Your task to perform on an android device: Add "jbl flip 4" to the cart on walmart.com Image 0: 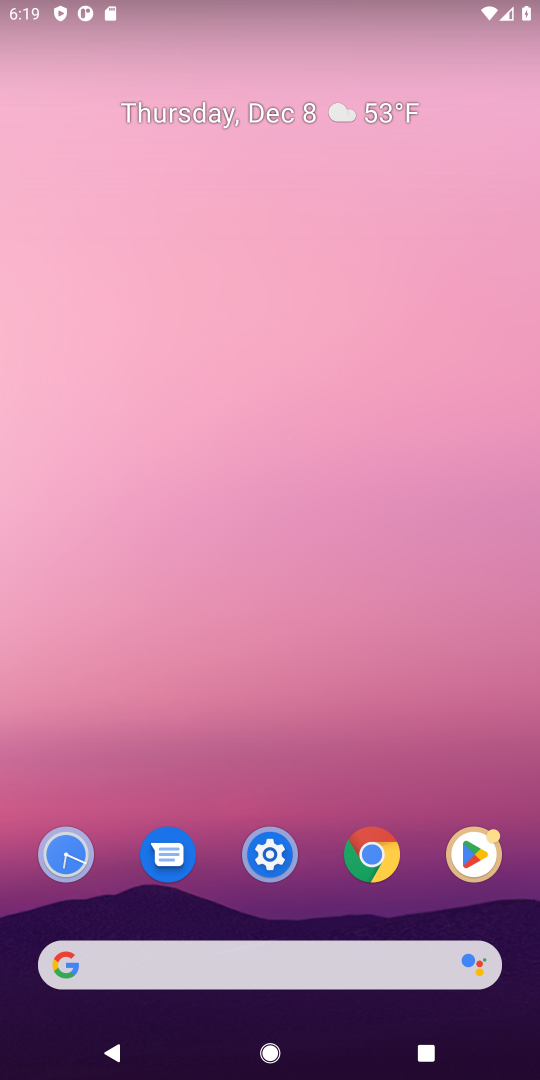
Step 0: click (97, 964)
Your task to perform on an android device: Add "jbl flip 4" to the cart on walmart.com Image 1: 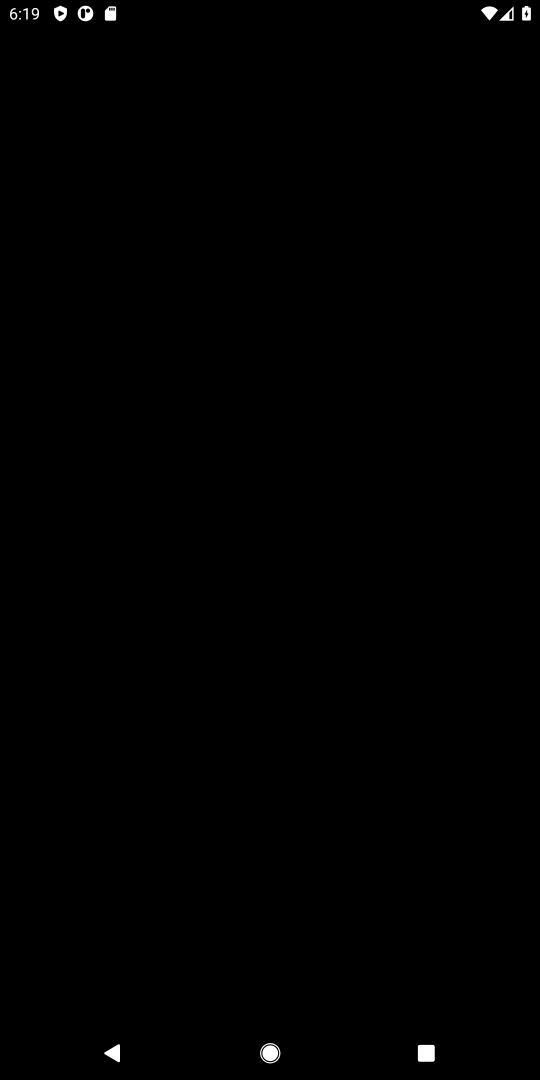
Step 1: click (114, 966)
Your task to perform on an android device: Add "jbl flip 4" to the cart on walmart.com Image 2: 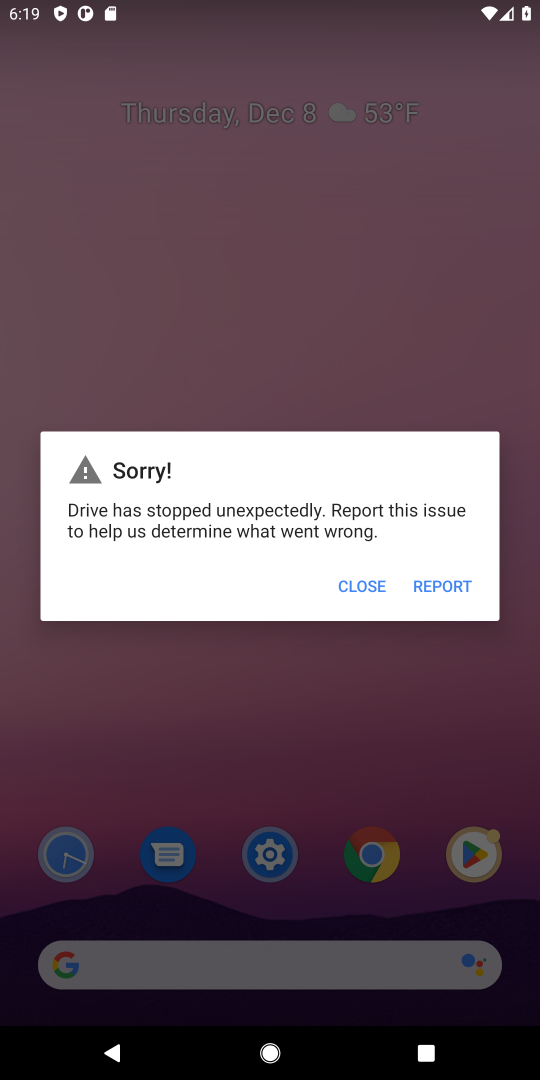
Step 2: press home button
Your task to perform on an android device: Add "jbl flip 4" to the cart on walmart.com Image 3: 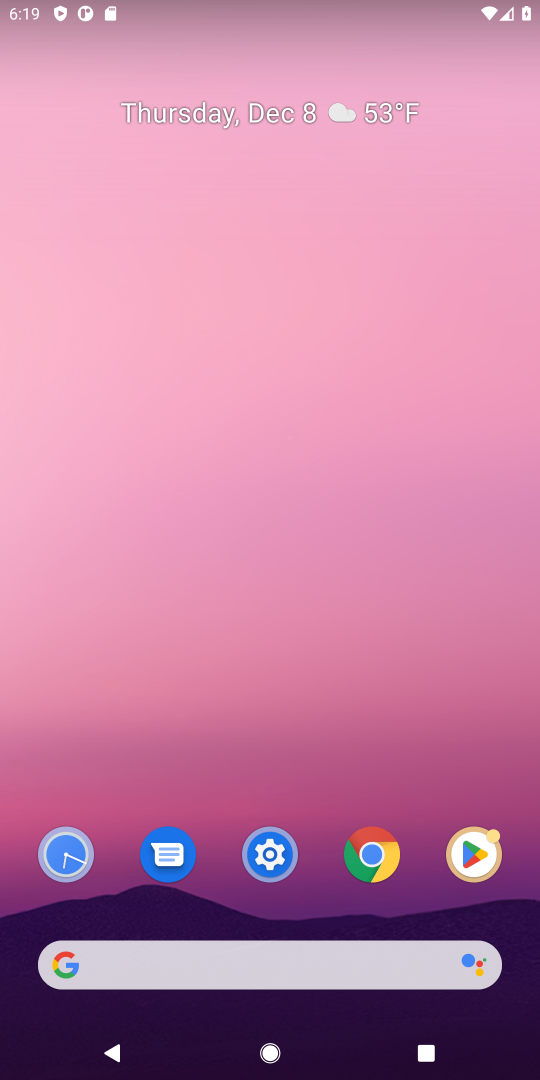
Step 3: click (80, 969)
Your task to perform on an android device: Add "jbl flip 4" to the cart on walmart.com Image 4: 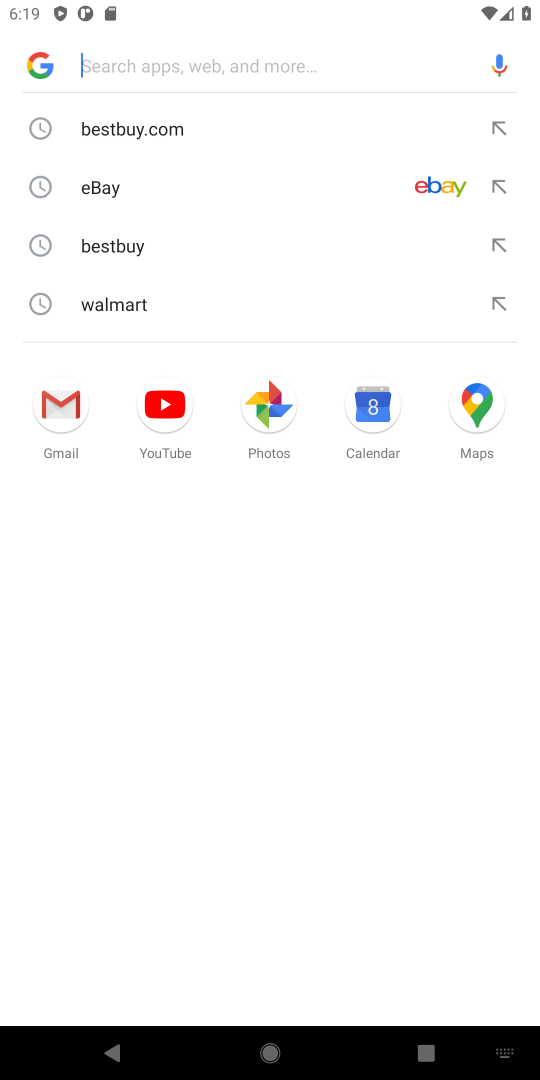
Step 4: type " walmart.com"
Your task to perform on an android device: Add "jbl flip 4" to the cart on walmart.com Image 5: 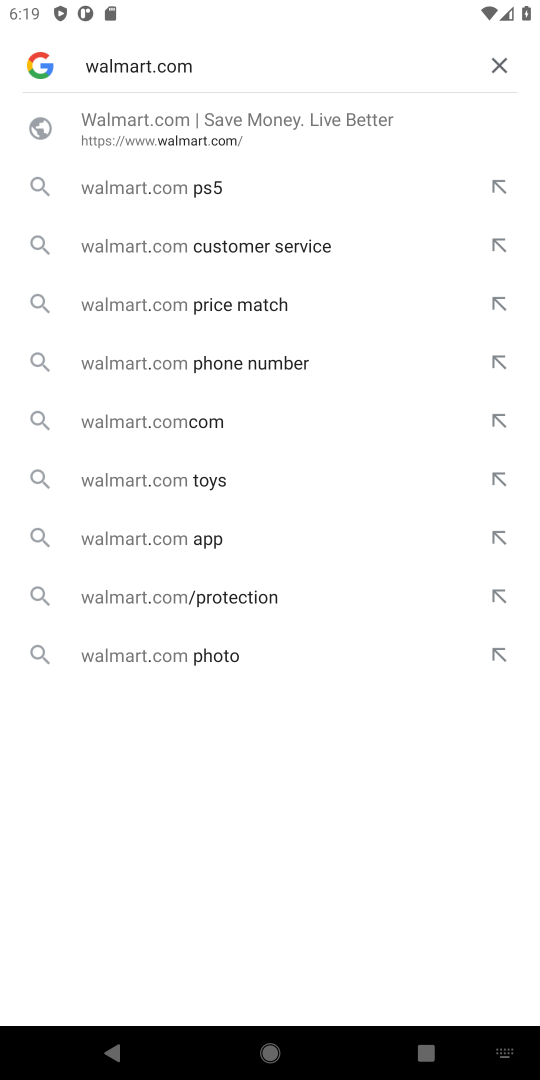
Step 5: press enter
Your task to perform on an android device: Add "jbl flip 4" to the cart on walmart.com Image 6: 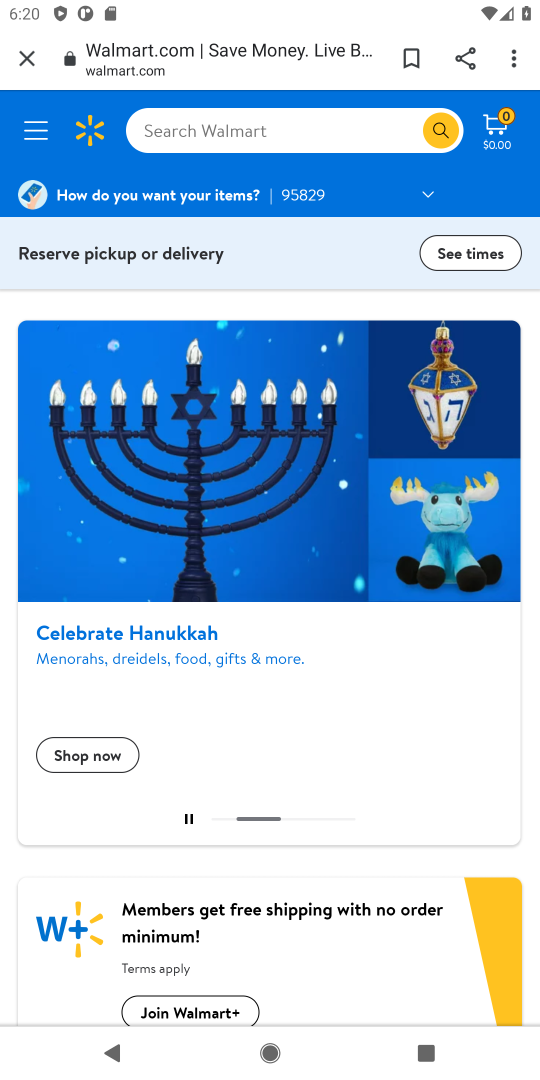
Step 6: click (245, 133)
Your task to perform on an android device: Add "jbl flip 4" to the cart on walmart.com Image 7: 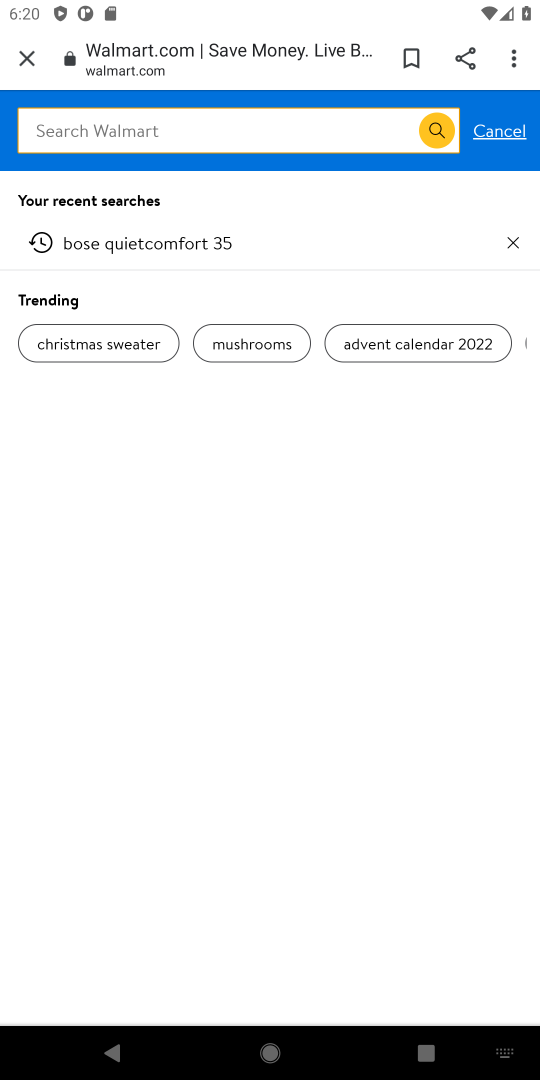
Step 7: type "jbl flip 4"
Your task to perform on an android device: Add "jbl flip 4" to the cart on walmart.com Image 8: 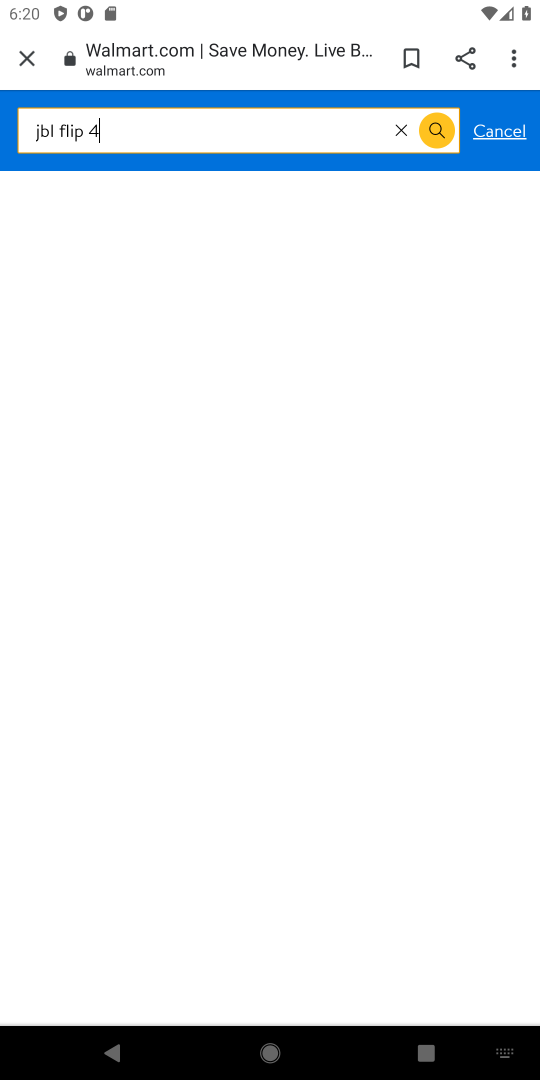
Step 8: press enter
Your task to perform on an android device: Add "jbl flip 4" to the cart on walmart.com Image 9: 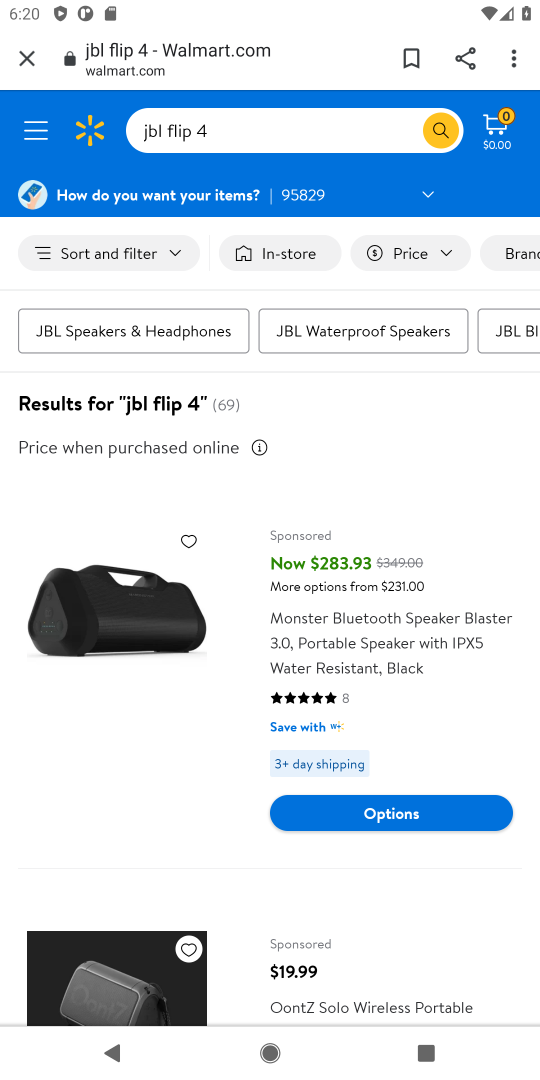
Step 9: drag from (384, 940) to (413, 558)
Your task to perform on an android device: Add "jbl flip 4" to the cart on walmart.com Image 10: 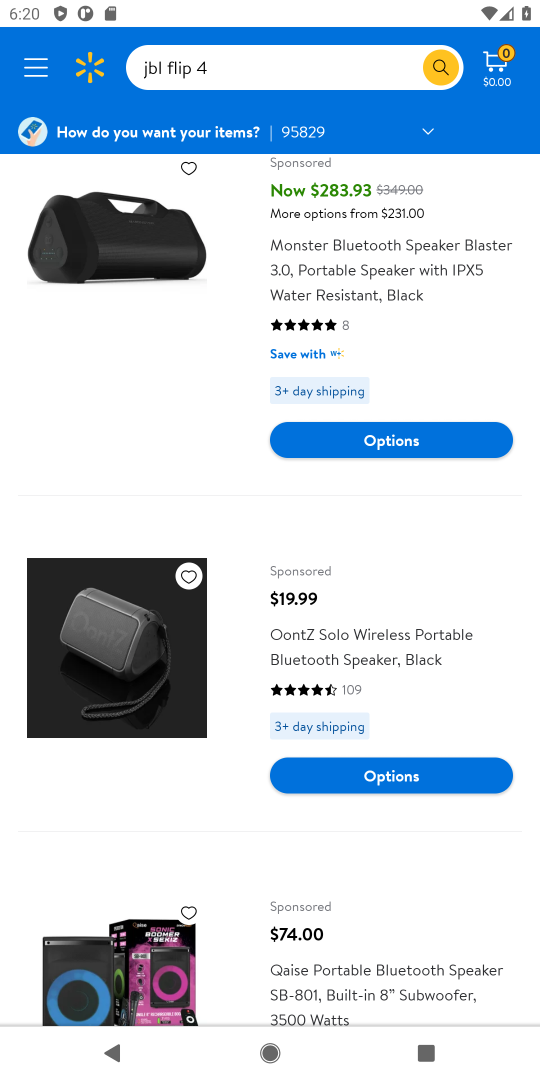
Step 10: drag from (366, 933) to (386, 401)
Your task to perform on an android device: Add "jbl flip 4" to the cart on walmart.com Image 11: 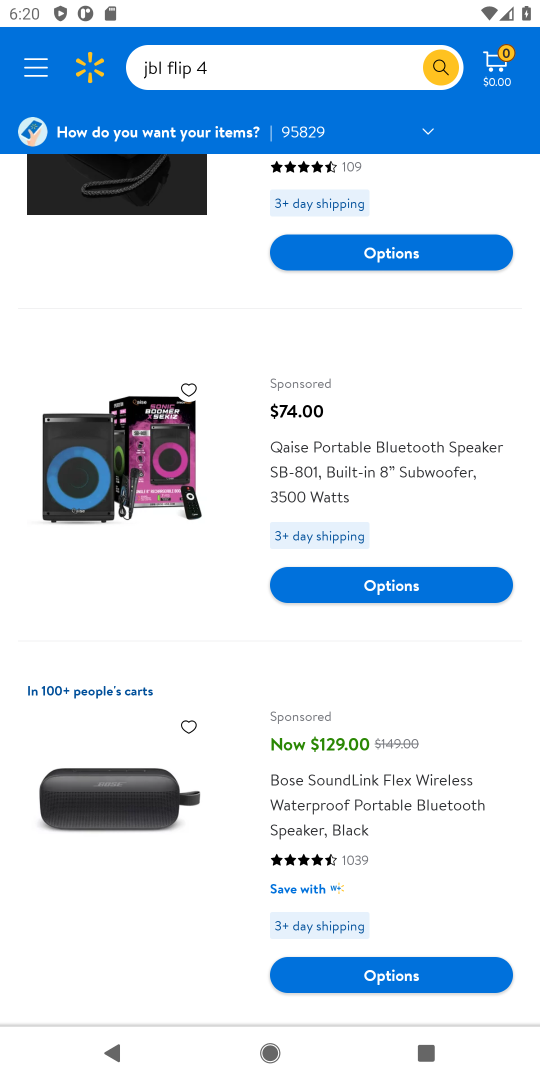
Step 11: drag from (361, 927) to (425, 408)
Your task to perform on an android device: Add "jbl flip 4" to the cart on walmart.com Image 12: 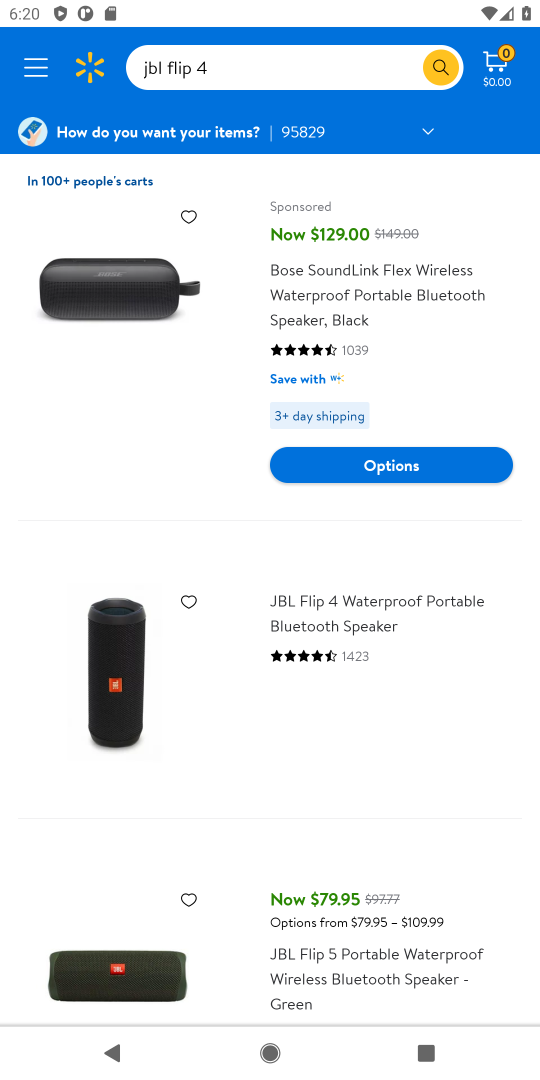
Step 12: click (335, 630)
Your task to perform on an android device: Add "jbl flip 4" to the cart on walmart.com Image 13: 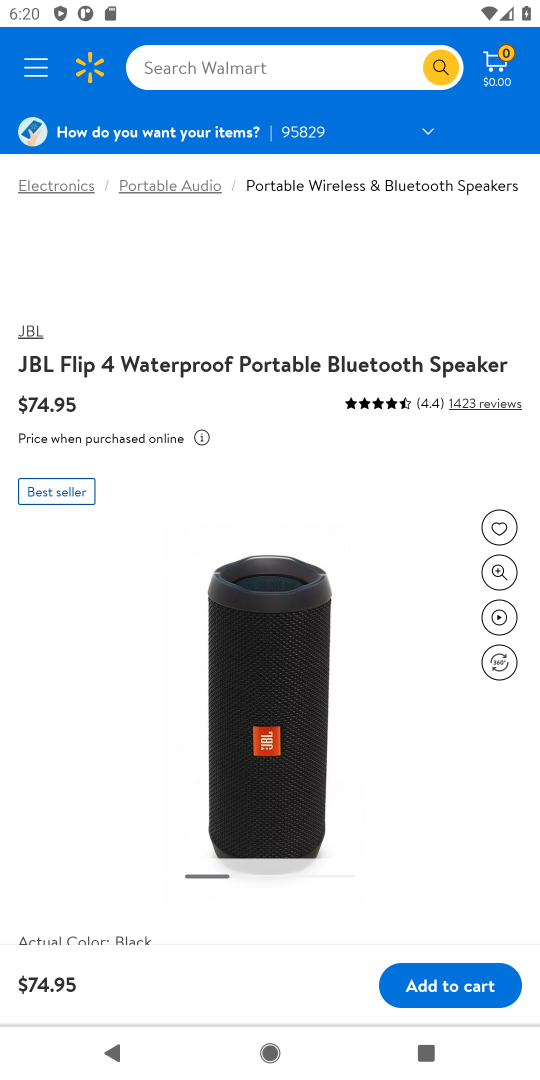
Step 13: click (450, 987)
Your task to perform on an android device: Add "jbl flip 4" to the cart on walmart.com Image 14: 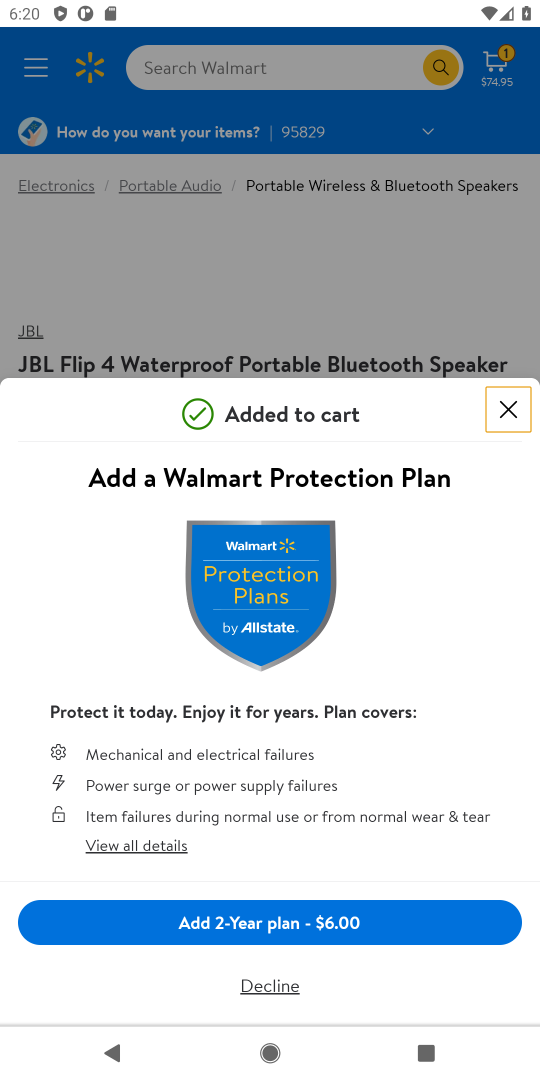
Step 14: click (252, 990)
Your task to perform on an android device: Add "jbl flip 4" to the cart on walmart.com Image 15: 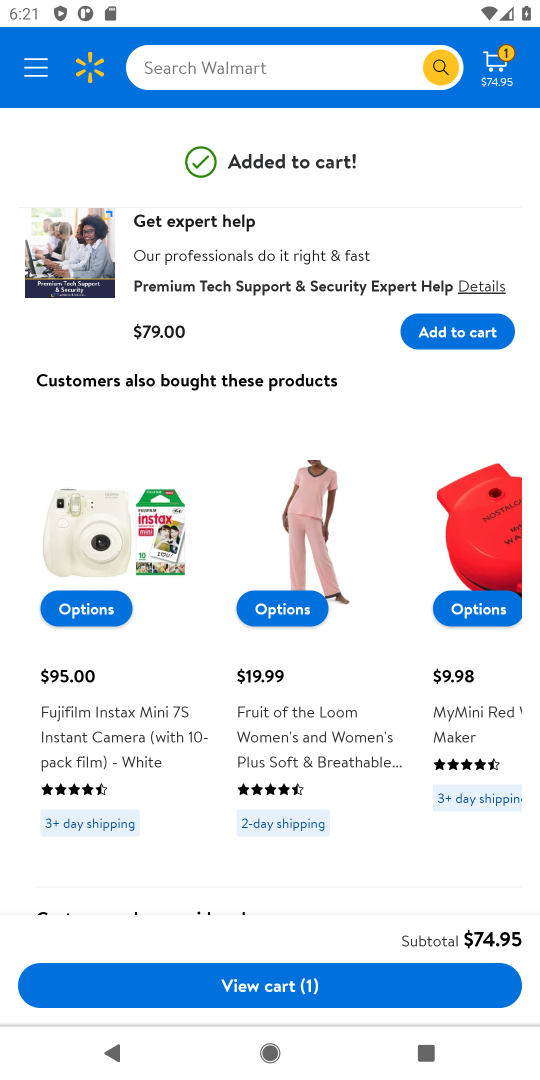
Step 15: task complete